Your task to perform on an android device: choose inbox layout in the gmail app Image 0: 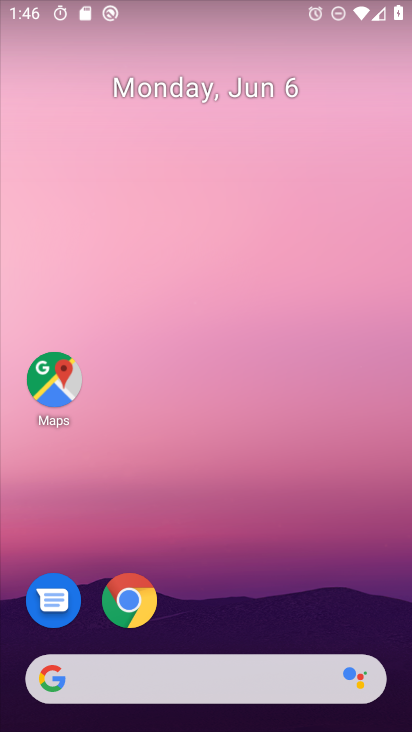
Step 0: drag from (194, 592) to (234, 158)
Your task to perform on an android device: choose inbox layout in the gmail app Image 1: 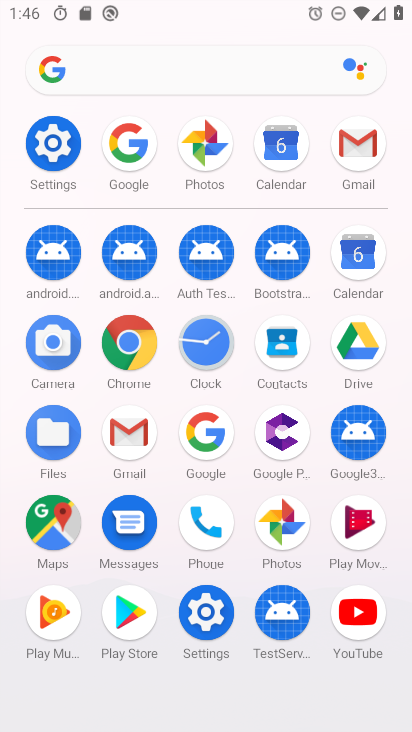
Step 1: click (366, 152)
Your task to perform on an android device: choose inbox layout in the gmail app Image 2: 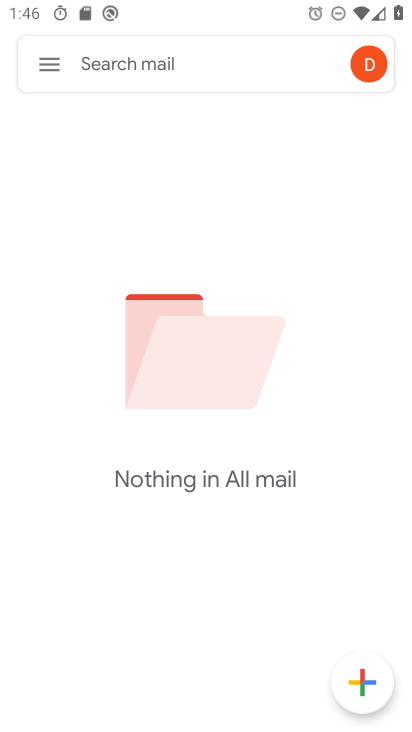
Step 2: click (48, 55)
Your task to perform on an android device: choose inbox layout in the gmail app Image 3: 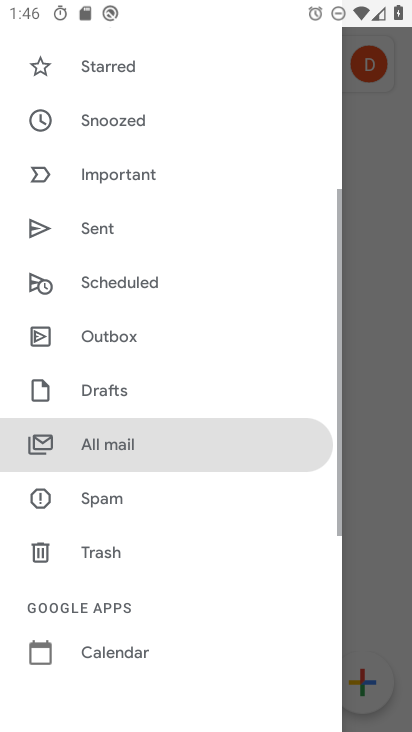
Step 3: drag from (141, 611) to (201, 186)
Your task to perform on an android device: choose inbox layout in the gmail app Image 4: 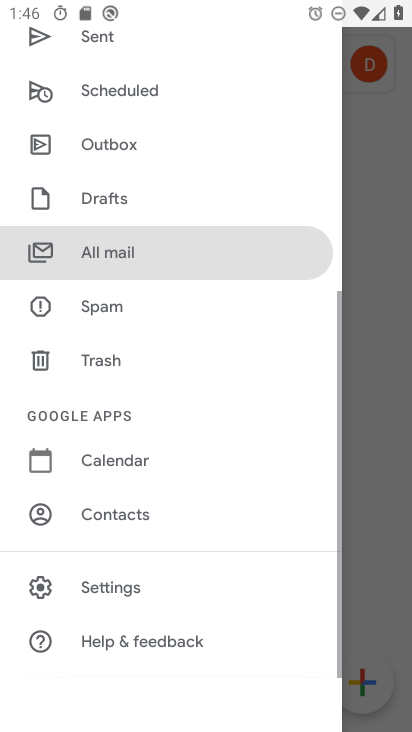
Step 4: click (121, 587)
Your task to perform on an android device: choose inbox layout in the gmail app Image 5: 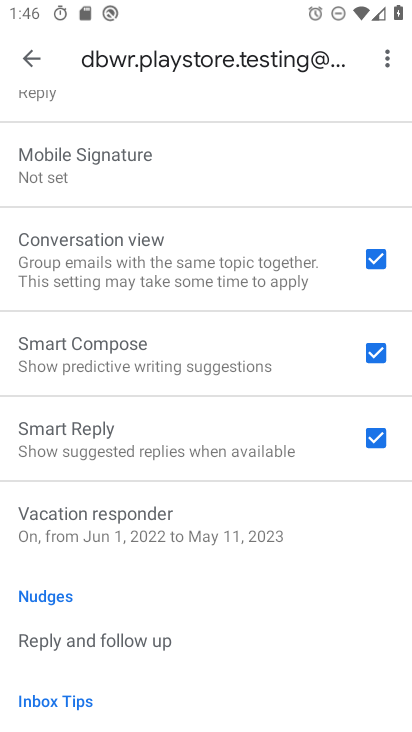
Step 5: drag from (207, 171) to (238, 586)
Your task to perform on an android device: choose inbox layout in the gmail app Image 6: 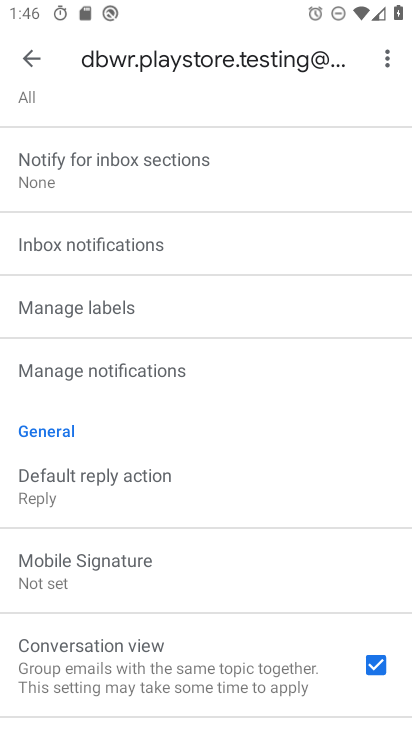
Step 6: drag from (193, 219) to (227, 512)
Your task to perform on an android device: choose inbox layout in the gmail app Image 7: 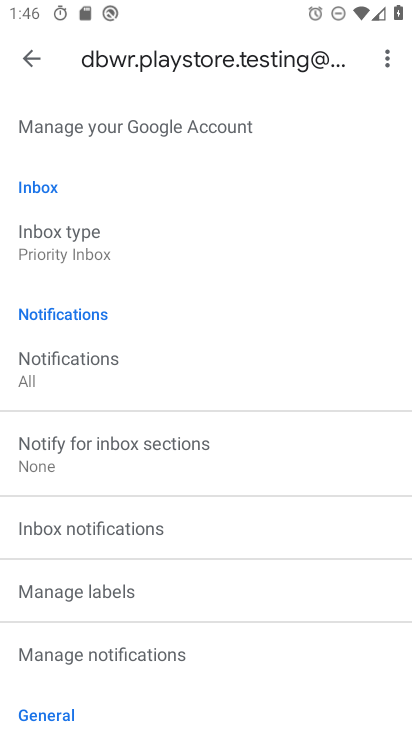
Step 7: click (61, 264)
Your task to perform on an android device: choose inbox layout in the gmail app Image 8: 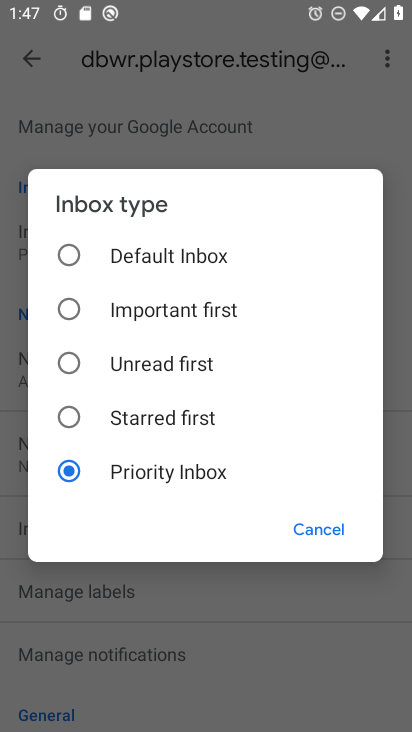
Step 8: click (195, 268)
Your task to perform on an android device: choose inbox layout in the gmail app Image 9: 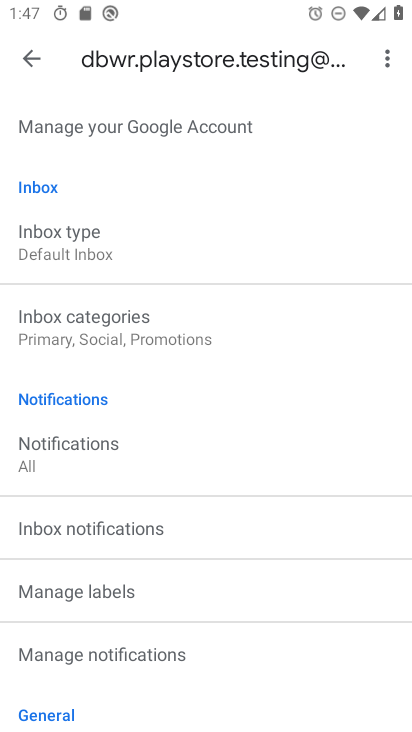
Step 9: task complete